Your task to perform on an android device: Check the weather Image 0: 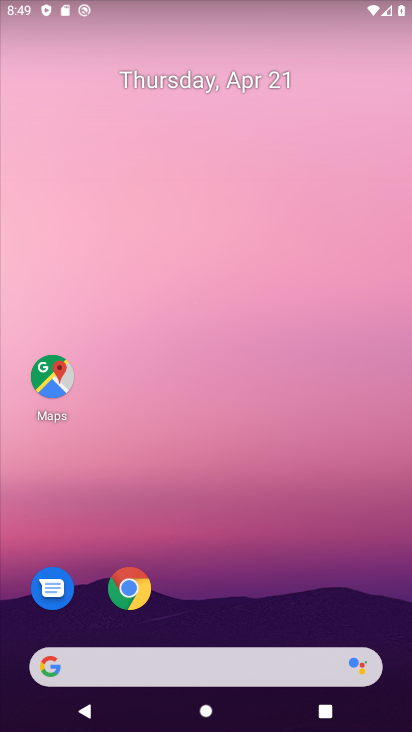
Step 0: drag from (311, 526) to (219, 20)
Your task to perform on an android device: Check the weather Image 1: 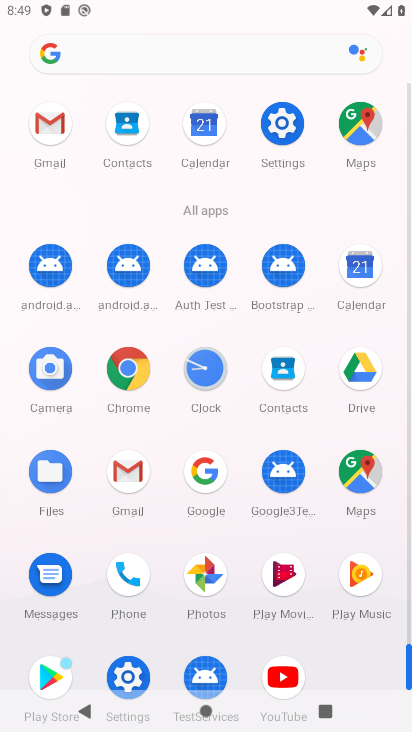
Step 1: drag from (7, 553) to (11, 292)
Your task to perform on an android device: Check the weather Image 2: 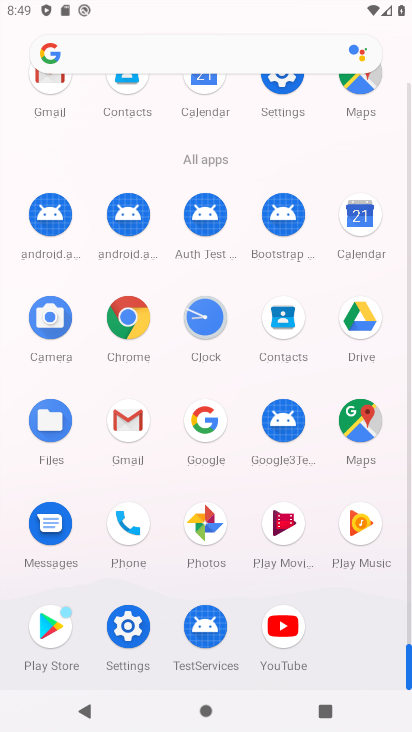
Step 2: click (159, 53)
Your task to perform on an android device: Check the weather Image 3: 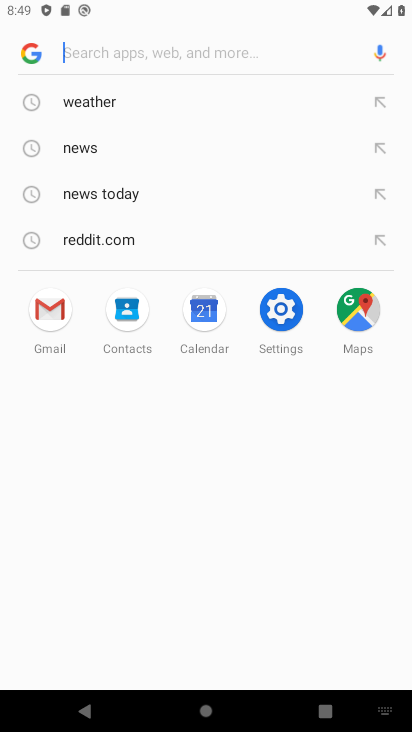
Step 3: click (124, 100)
Your task to perform on an android device: Check the weather Image 4: 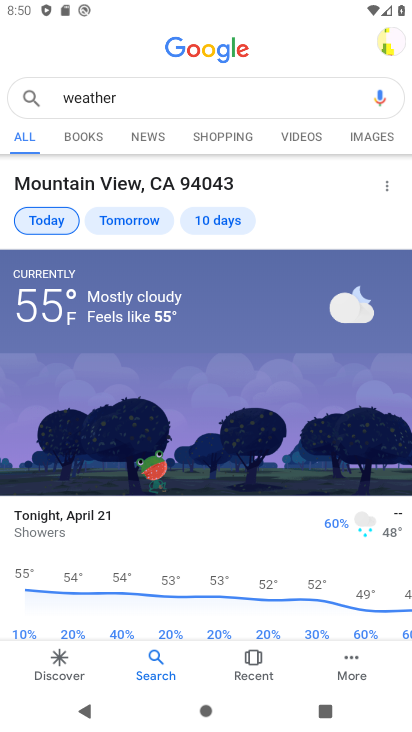
Step 4: task complete